Your task to perform on an android device: stop showing notifications on the lock screen Image 0: 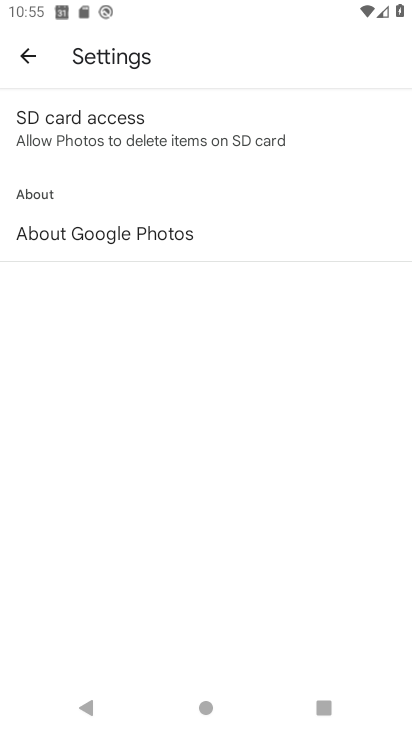
Step 0: press home button
Your task to perform on an android device: stop showing notifications on the lock screen Image 1: 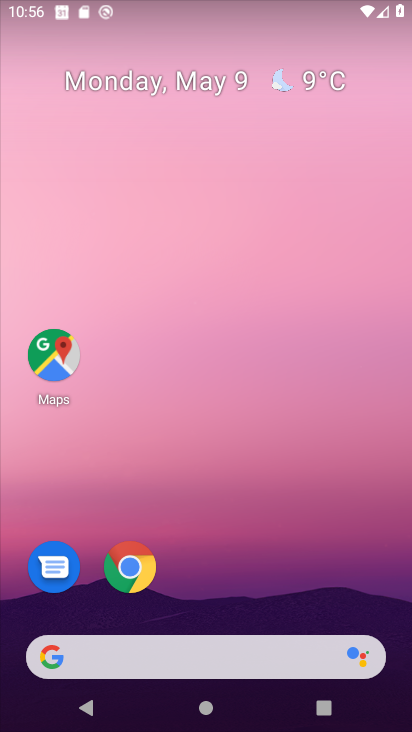
Step 1: drag from (221, 607) to (263, 23)
Your task to perform on an android device: stop showing notifications on the lock screen Image 2: 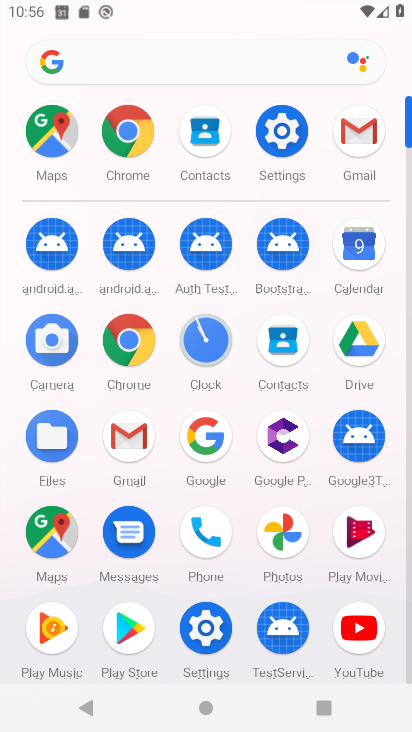
Step 2: click (281, 127)
Your task to perform on an android device: stop showing notifications on the lock screen Image 3: 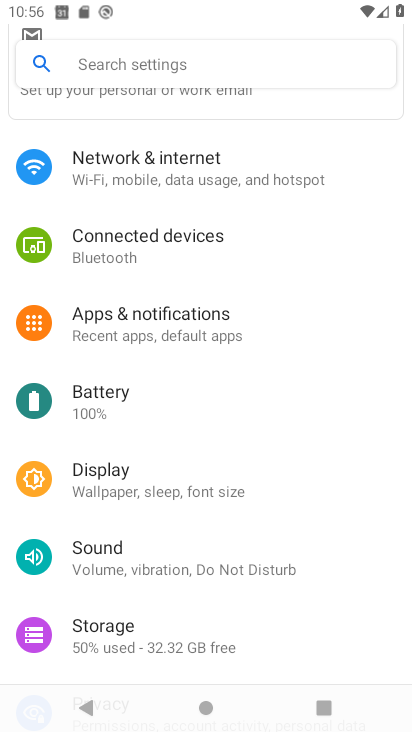
Step 3: click (165, 327)
Your task to perform on an android device: stop showing notifications on the lock screen Image 4: 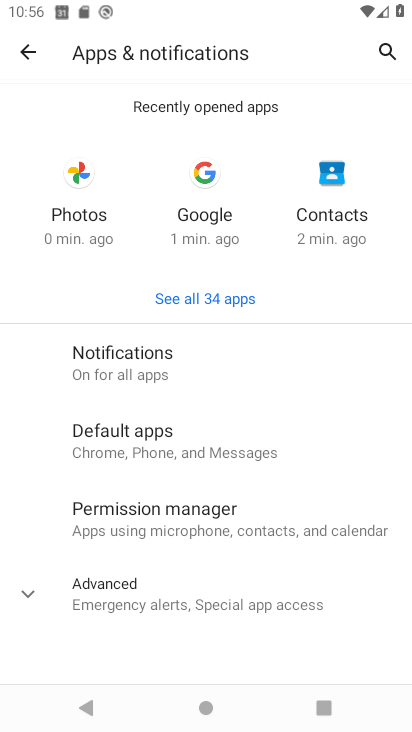
Step 4: click (181, 355)
Your task to perform on an android device: stop showing notifications on the lock screen Image 5: 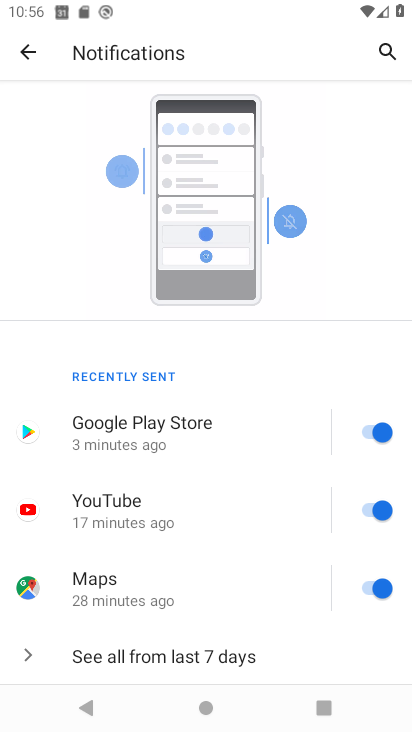
Step 5: drag from (223, 601) to (223, 136)
Your task to perform on an android device: stop showing notifications on the lock screen Image 6: 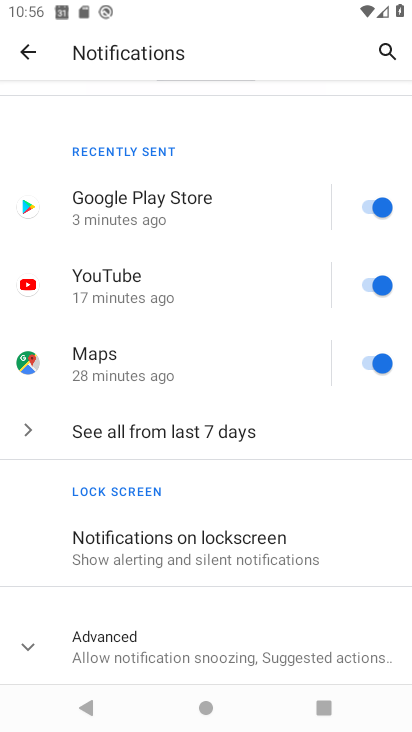
Step 6: click (140, 641)
Your task to perform on an android device: stop showing notifications on the lock screen Image 7: 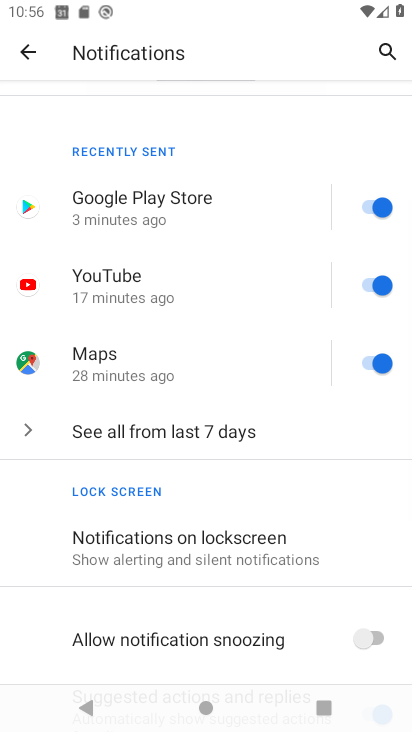
Step 7: drag from (178, 618) to (182, 373)
Your task to perform on an android device: stop showing notifications on the lock screen Image 8: 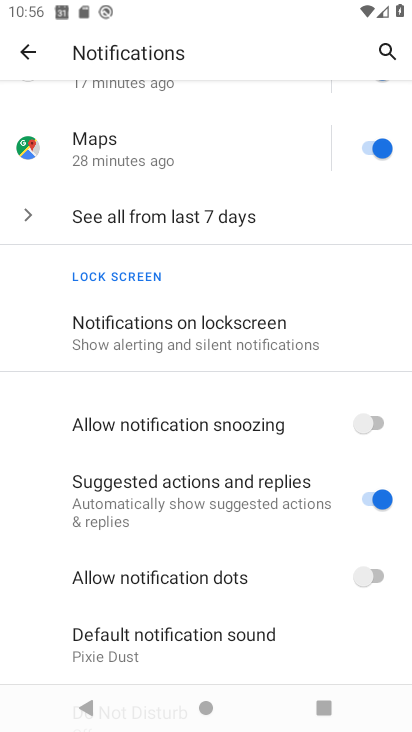
Step 8: click (211, 325)
Your task to perform on an android device: stop showing notifications on the lock screen Image 9: 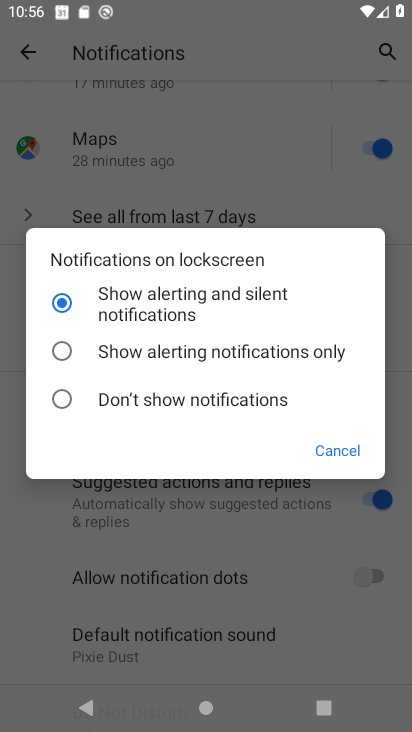
Step 9: click (62, 405)
Your task to perform on an android device: stop showing notifications on the lock screen Image 10: 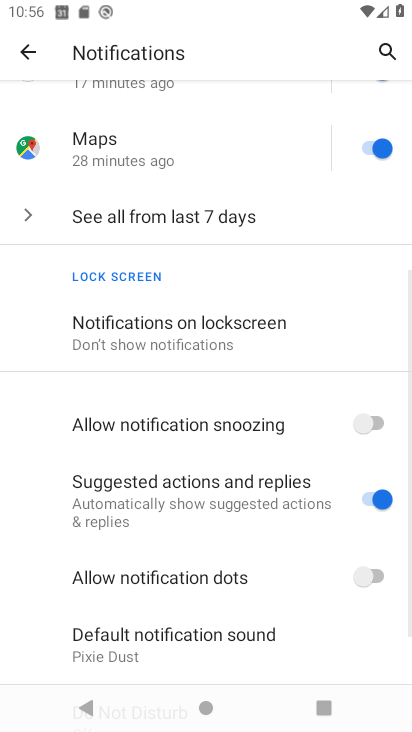
Step 10: task complete